Your task to perform on an android device: turn on wifi Image 0: 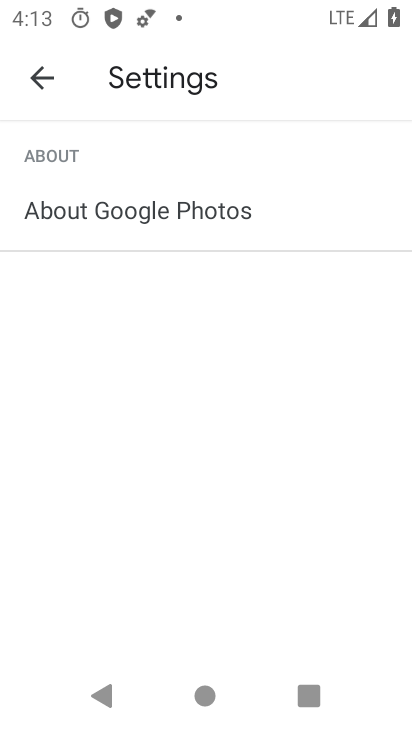
Step 0: press home button
Your task to perform on an android device: turn on wifi Image 1: 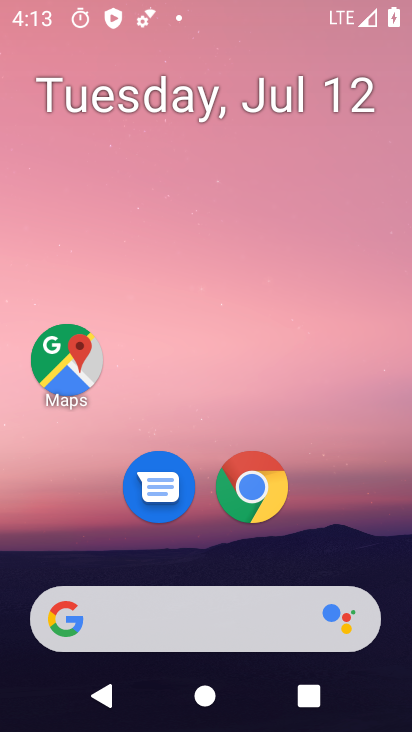
Step 1: drag from (205, 669) to (240, 125)
Your task to perform on an android device: turn on wifi Image 2: 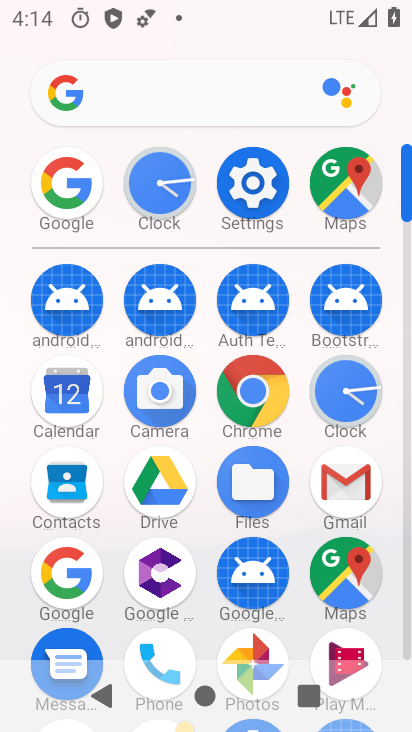
Step 2: click (255, 193)
Your task to perform on an android device: turn on wifi Image 3: 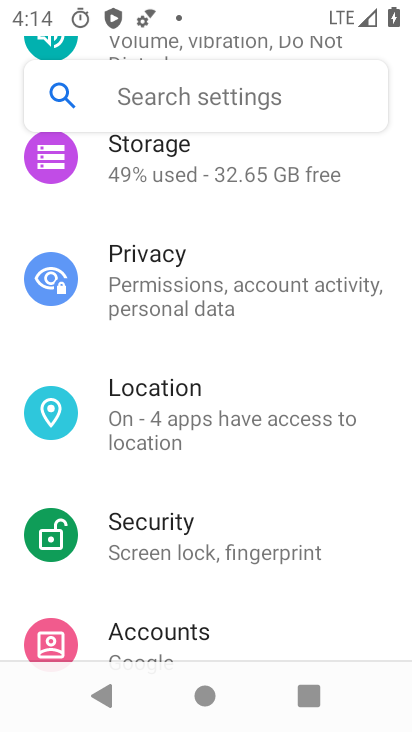
Step 3: drag from (165, 240) to (143, 531)
Your task to perform on an android device: turn on wifi Image 4: 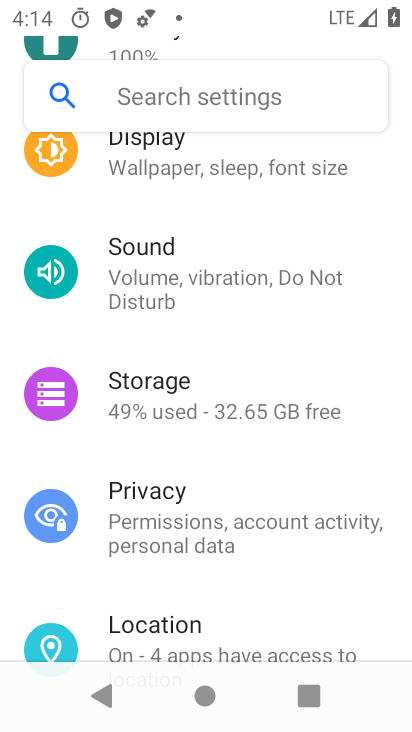
Step 4: drag from (259, 230) to (159, 708)
Your task to perform on an android device: turn on wifi Image 5: 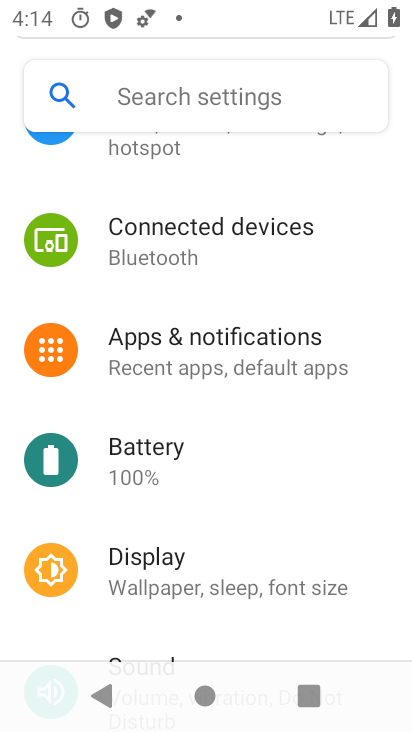
Step 5: drag from (262, 328) to (189, 714)
Your task to perform on an android device: turn on wifi Image 6: 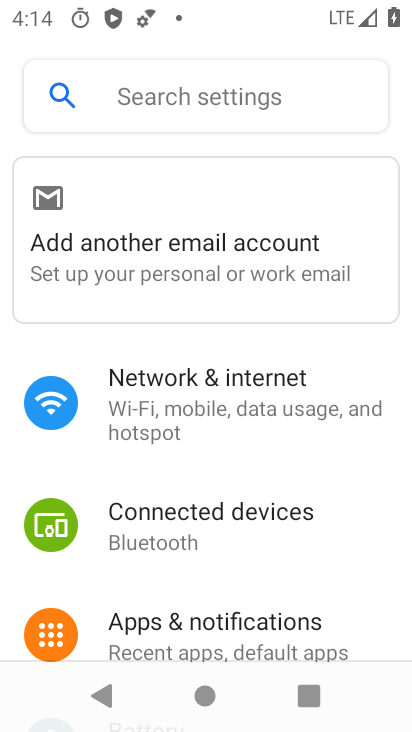
Step 6: click (234, 387)
Your task to perform on an android device: turn on wifi Image 7: 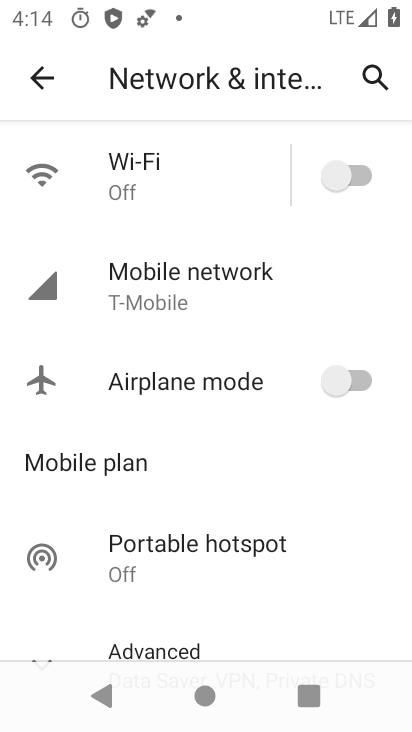
Step 7: click (350, 179)
Your task to perform on an android device: turn on wifi Image 8: 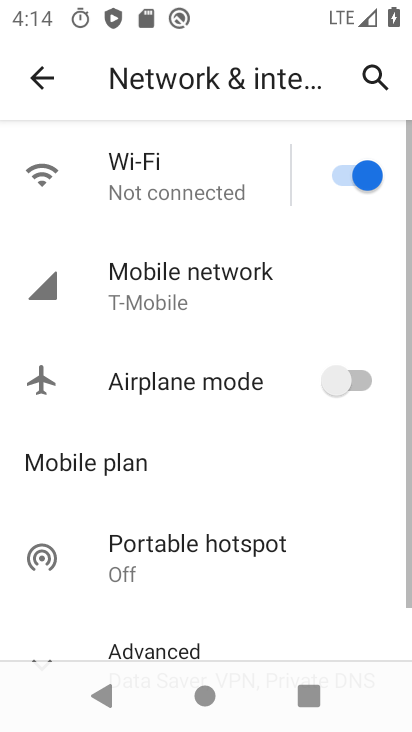
Step 8: task complete